Your task to perform on an android device: Add energizer triple a to the cart on newegg.com, then select checkout. Image 0: 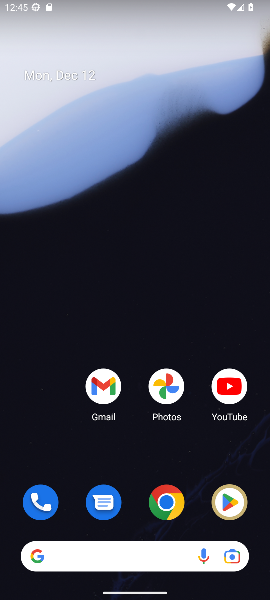
Step 0: click (176, 502)
Your task to perform on an android device: Add energizer triple a to the cart on newegg.com, then select checkout. Image 1: 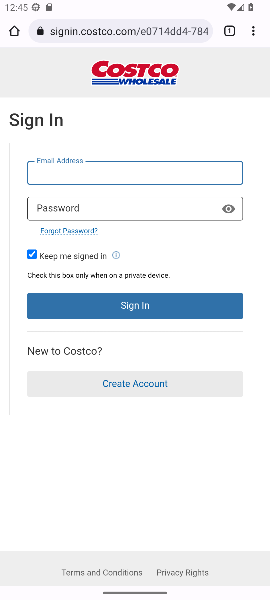
Step 1: click (126, 31)
Your task to perform on an android device: Add energizer triple a to the cart on newegg.com, then select checkout. Image 2: 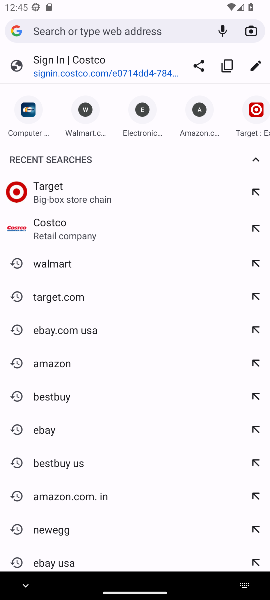
Step 2: type "newegg"
Your task to perform on an android device: Add energizer triple a to the cart on newegg.com, then select checkout. Image 3: 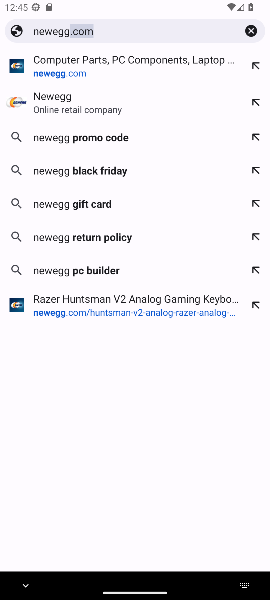
Step 3: click (127, 73)
Your task to perform on an android device: Add energizer triple a to the cart on newegg.com, then select checkout. Image 4: 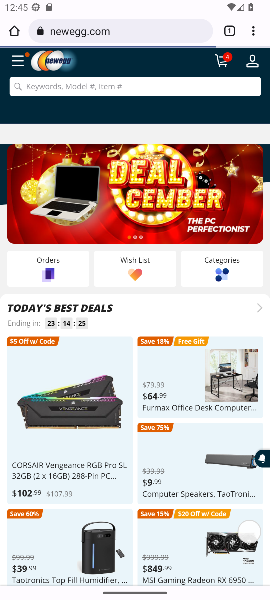
Step 4: click (108, 86)
Your task to perform on an android device: Add energizer triple a to the cart on newegg.com, then select checkout. Image 5: 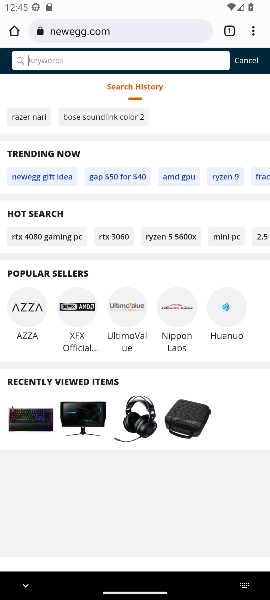
Step 5: type "energizer triple a"
Your task to perform on an android device: Add energizer triple a to the cart on newegg.com, then select checkout. Image 6: 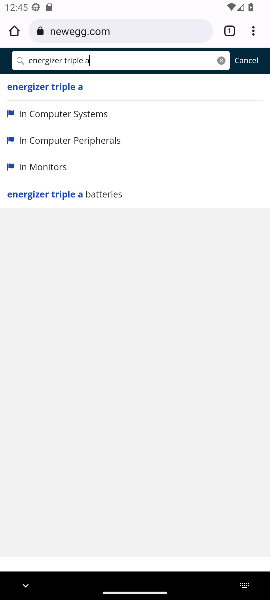
Step 6: click (71, 88)
Your task to perform on an android device: Add energizer triple a to the cart on newegg.com, then select checkout. Image 7: 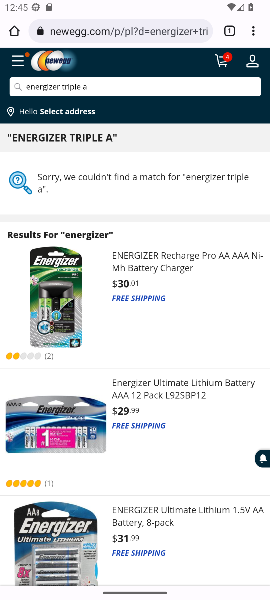
Step 7: click (143, 266)
Your task to perform on an android device: Add energizer triple a to the cart on newegg.com, then select checkout. Image 8: 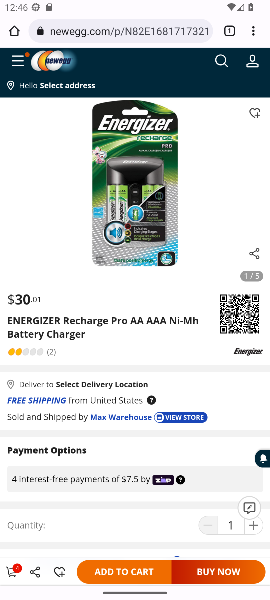
Step 8: click (134, 575)
Your task to perform on an android device: Add energizer triple a to the cart on newegg.com, then select checkout. Image 9: 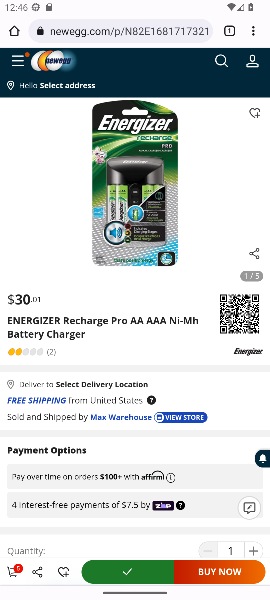
Step 9: task complete